Your task to perform on an android device: Go to notification settings Image 0: 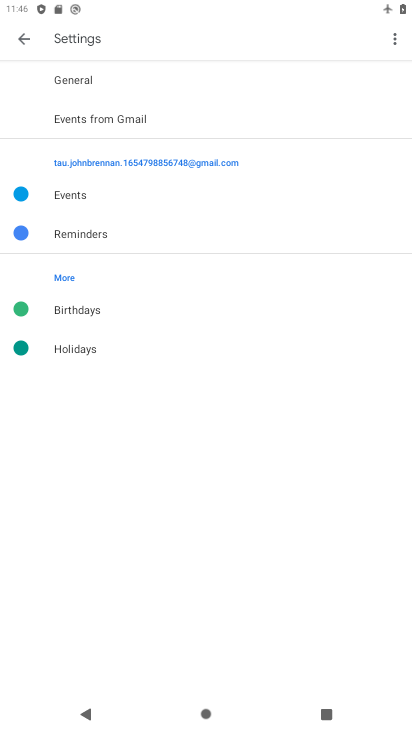
Step 0: press home button
Your task to perform on an android device: Go to notification settings Image 1: 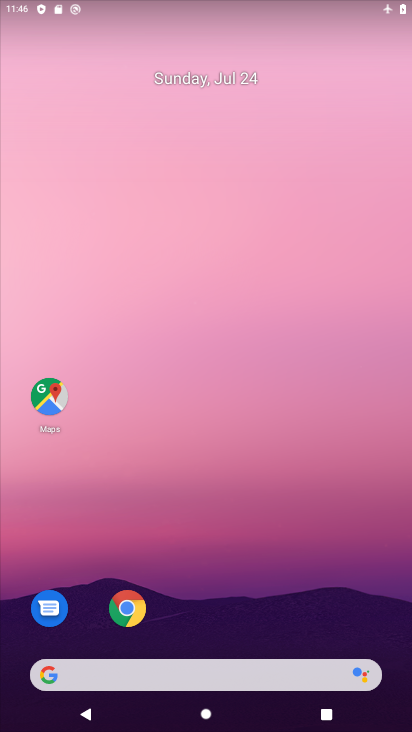
Step 1: drag from (217, 609) to (199, 180)
Your task to perform on an android device: Go to notification settings Image 2: 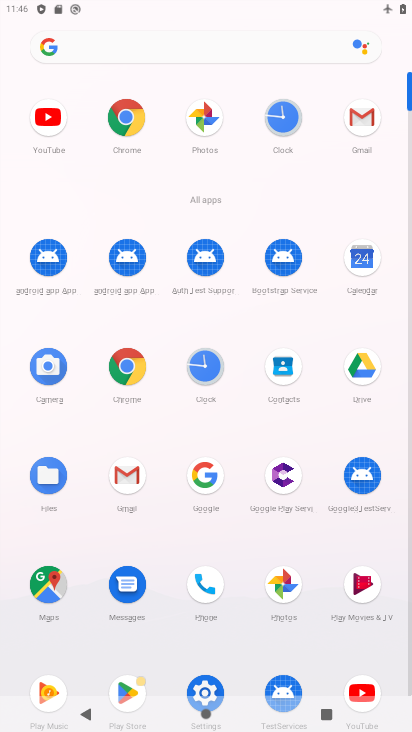
Step 2: click (202, 687)
Your task to perform on an android device: Go to notification settings Image 3: 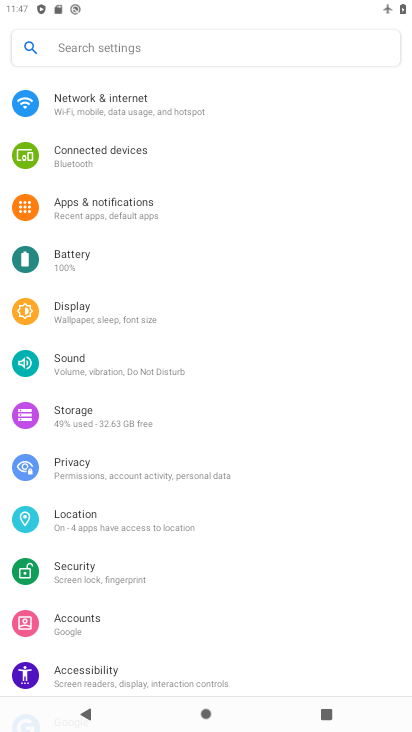
Step 3: click (144, 215)
Your task to perform on an android device: Go to notification settings Image 4: 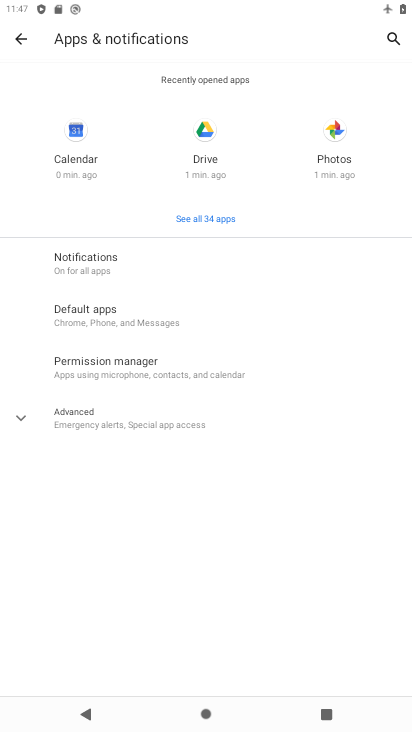
Step 4: click (135, 276)
Your task to perform on an android device: Go to notification settings Image 5: 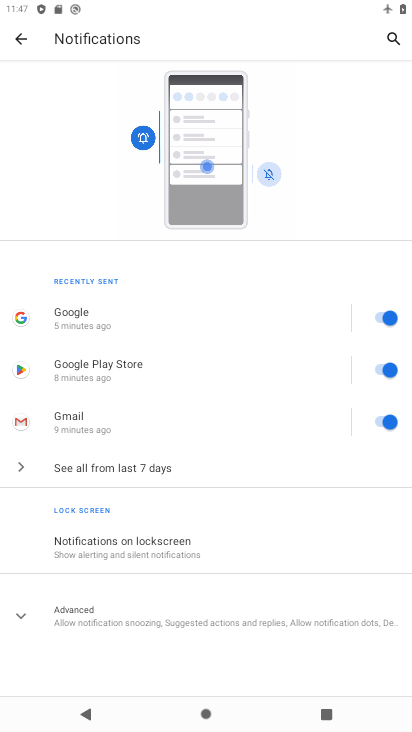
Step 5: task complete